Your task to perform on an android device: Open wifi settings Image 0: 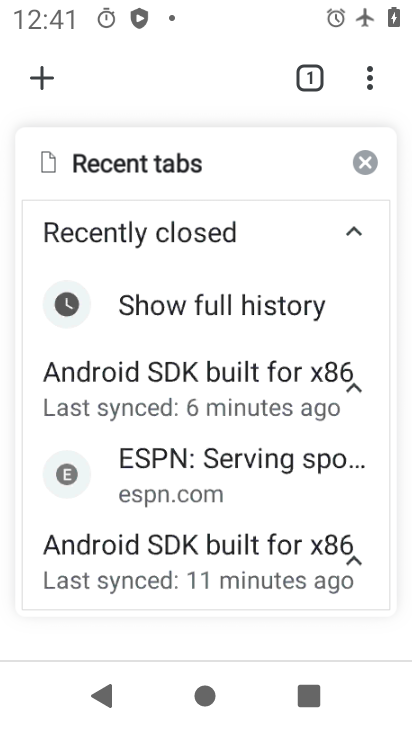
Step 0: press home button
Your task to perform on an android device: Open wifi settings Image 1: 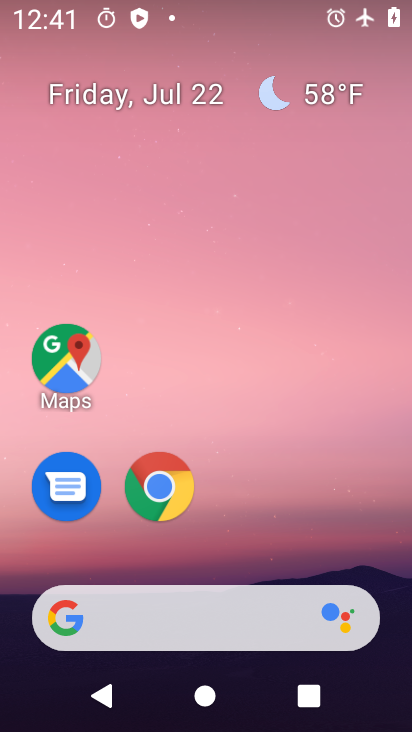
Step 1: drag from (344, 511) to (345, 133)
Your task to perform on an android device: Open wifi settings Image 2: 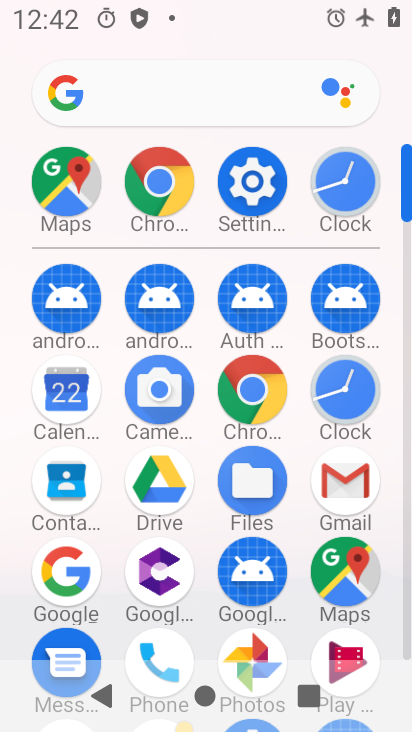
Step 2: click (273, 194)
Your task to perform on an android device: Open wifi settings Image 3: 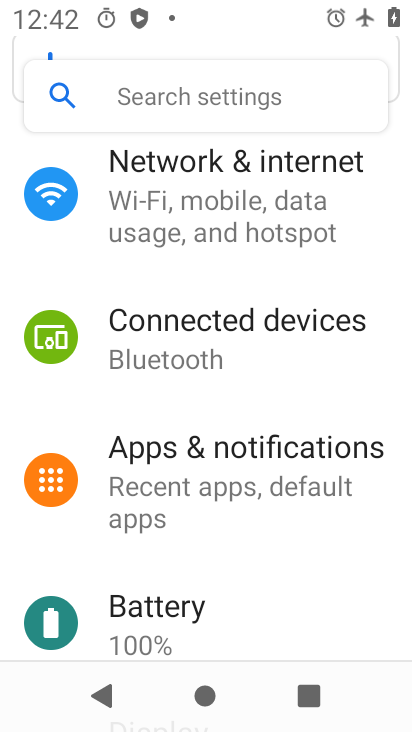
Step 3: drag from (376, 559) to (358, 430)
Your task to perform on an android device: Open wifi settings Image 4: 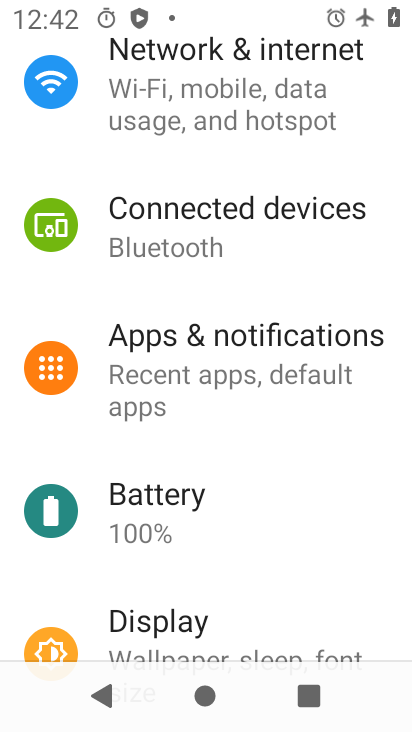
Step 4: drag from (357, 486) to (357, 402)
Your task to perform on an android device: Open wifi settings Image 5: 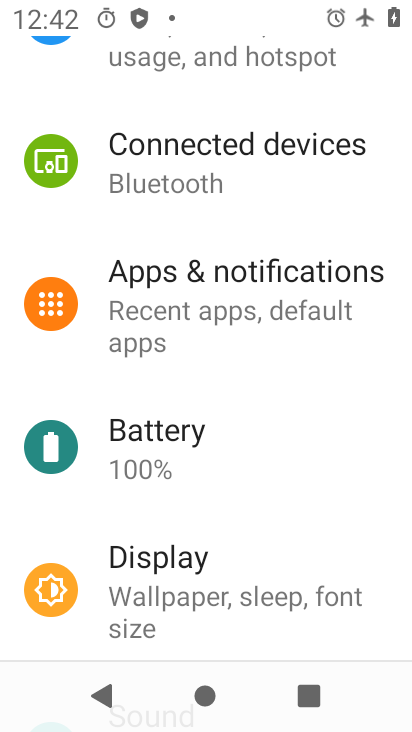
Step 5: drag from (353, 468) to (350, 382)
Your task to perform on an android device: Open wifi settings Image 6: 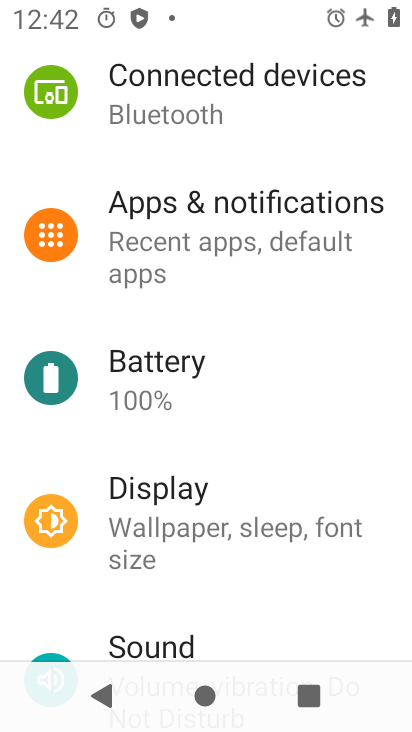
Step 6: drag from (353, 522) to (349, 424)
Your task to perform on an android device: Open wifi settings Image 7: 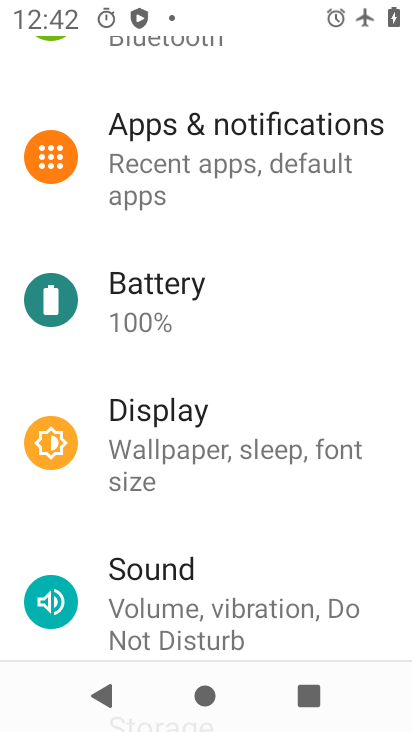
Step 7: drag from (337, 516) to (343, 410)
Your task to perform on an android device: Open wifi settings Image 8: 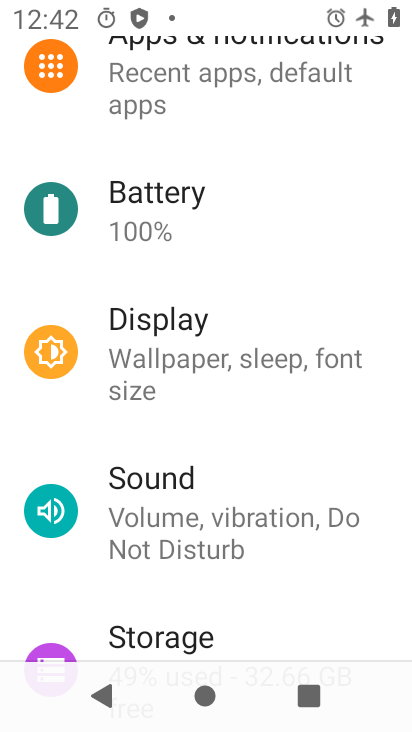
Step 8: drag from (358, 553) to (363, 450)
Your task to perform on an android device: Open wifi settings Image 9: 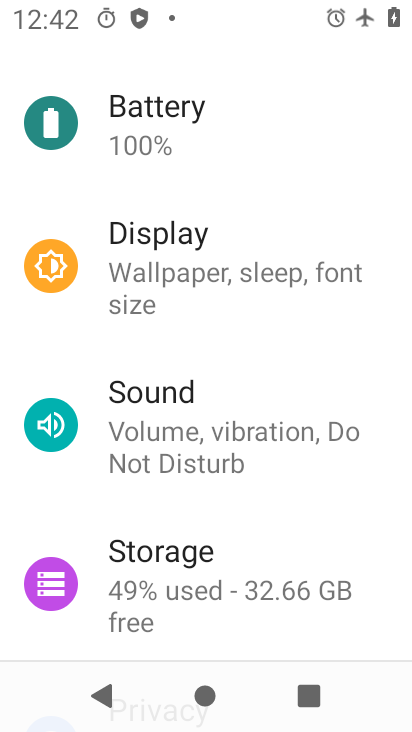
Step 9: drag from (356, 332) to (367, 399)
Your task to perform on an android device: Open wifi settings Image 10: 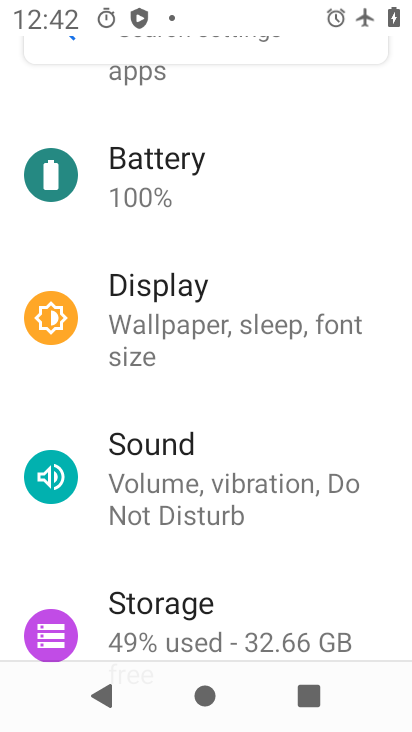
Step 10: drag from (368, 274) to (368, 372)
Your task to perform on an android device: Open wifi settings Image 11: 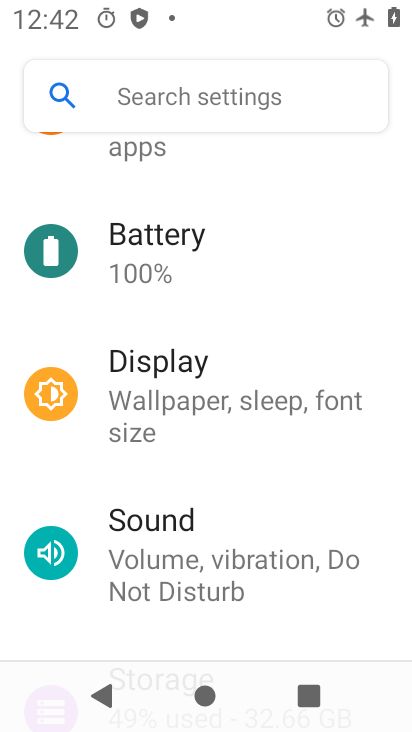
Step 11: drag from (362, 267) to (361, 363)
Your task to perform on an android device: Open wifi settings Image 12: 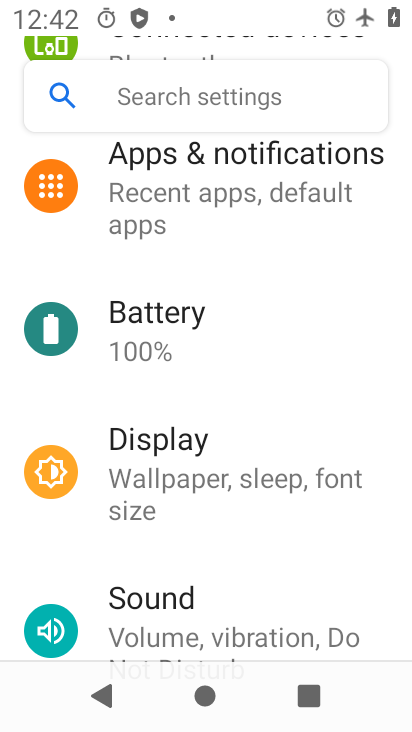
Step 12: drag from (356, 292) to (351, 381)
Your task to perform on an android device: Open wifi settings Image 13: 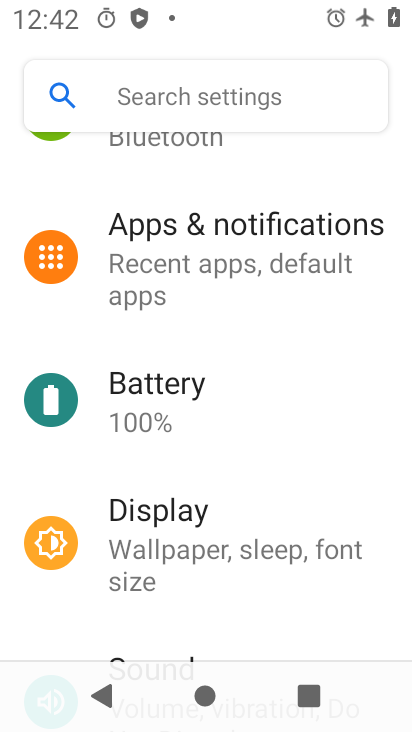
Step 13: drag from (342, 293) to (342, 375)
Your task to perform on an android device: Open wifi settings Image 14: 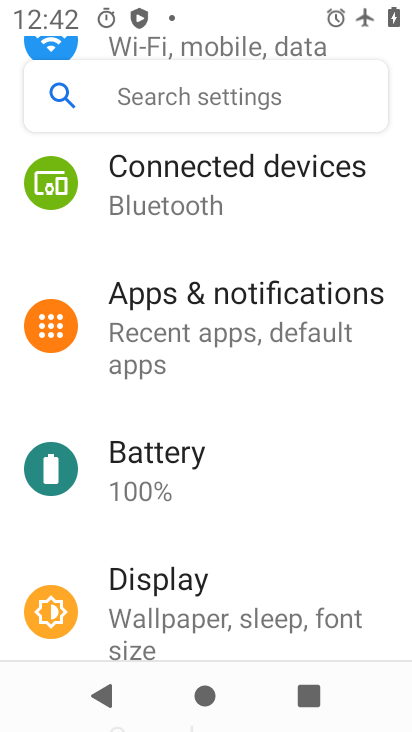
Step 14: drag from (354, 220) to (355, 344)
Your task to perform on an android device: Open wifi settings Image 15: 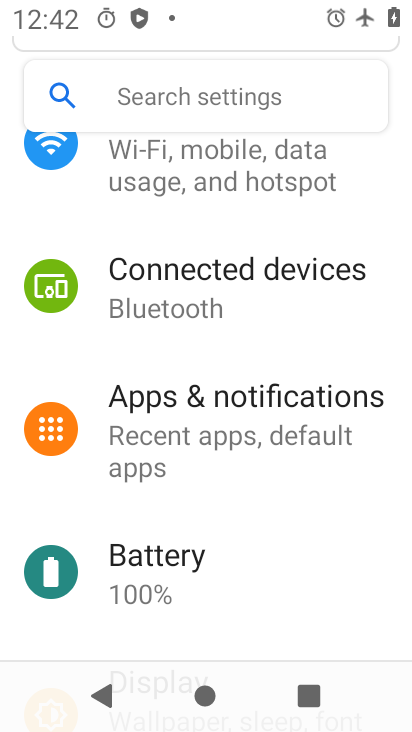
Step 15: drag from (358, 202) to (358, 322)
Your task to perform on an android device: Open wifi settings Image 16: 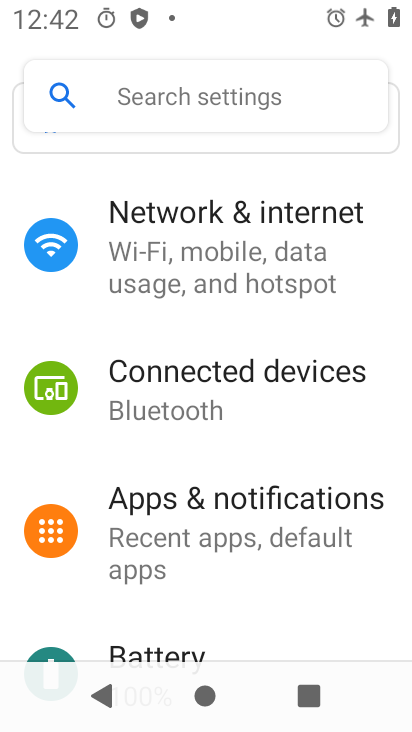
Step 16: click (313, 269)
Your task to perform on an android device: Open wifi settings Image 17: 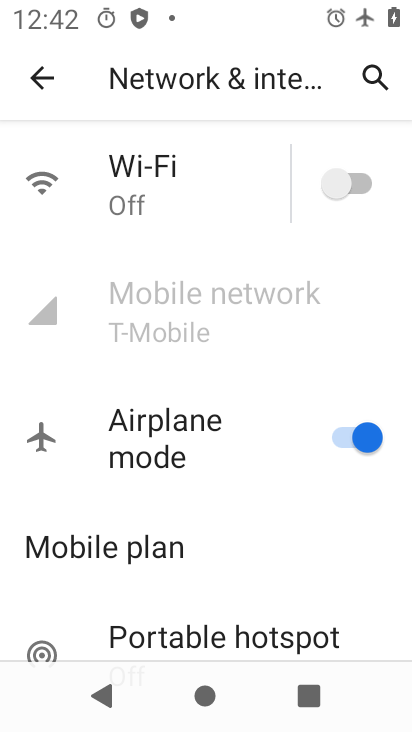
Step 17: click (176, 189)
Your task to perform on an android device: Open wifi settings Image 18: 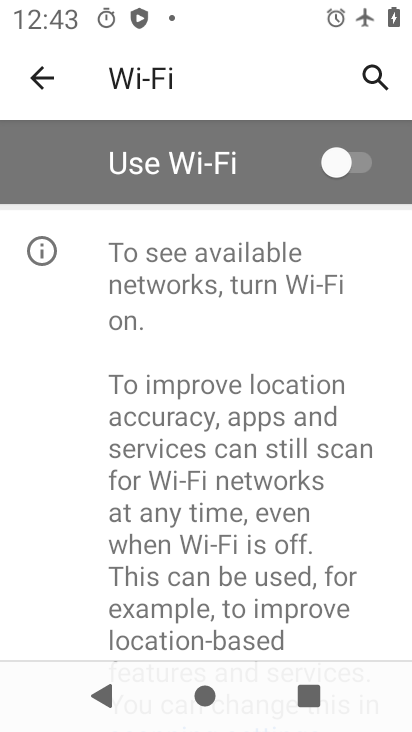
Step 18: task complete